Your task to perform on an android device: open the mobile data screen to see how much data has been used Image 0: 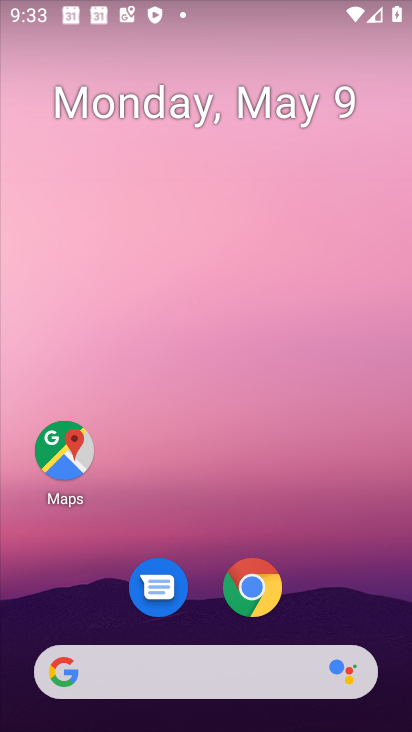
Step 0: drag from (192, 612) to (206, 310)
Your task to perform on an android device: open the mobile data screen to see how much data has been used Image 1: 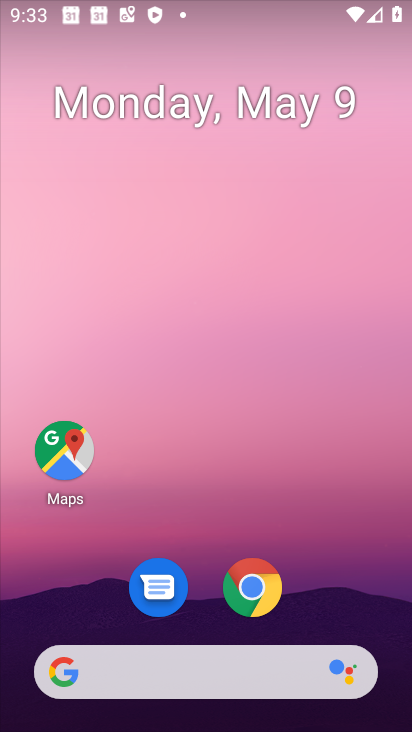
Step 1: drag from (202, 628) to (196, 178)
Your task to perform on an android device: open the mobile data screen to see how much data has been used Image 2: 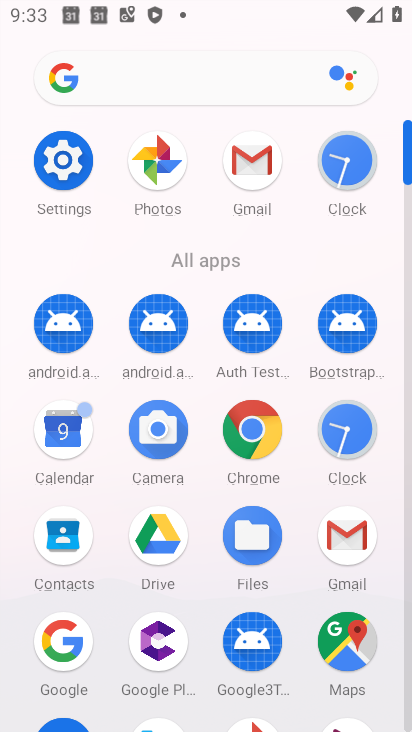
Step 2: click (62, 156)
Your task to perform on an android device: open the mobile data screen to see how much data has been used Image 3: 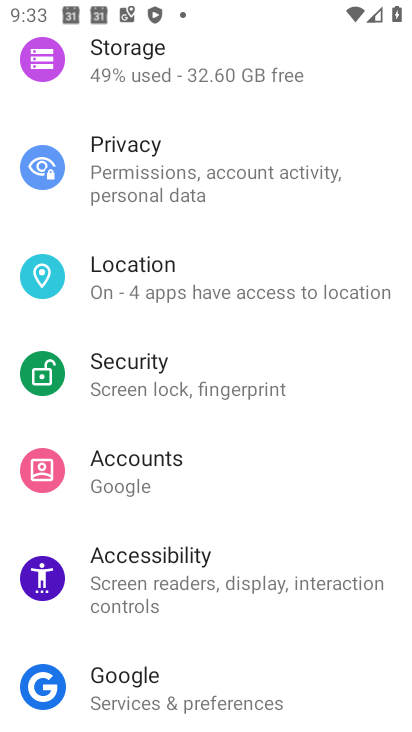
Step 3: drag from (180, 150) to (165, 669)
Your task to perform on an android device: open the mobile data screen to see how much data has been used Image 4: 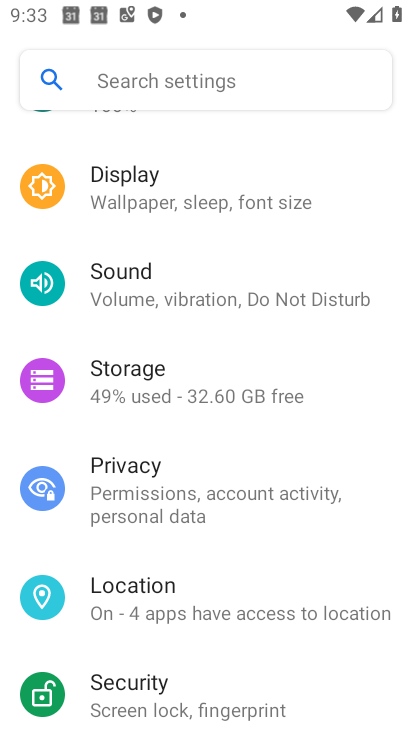
Step 4: drag from (212, 260) to (264, 675)
Your task to perform on an android device: open the mobile data screen to see how much data has been used Image 5: 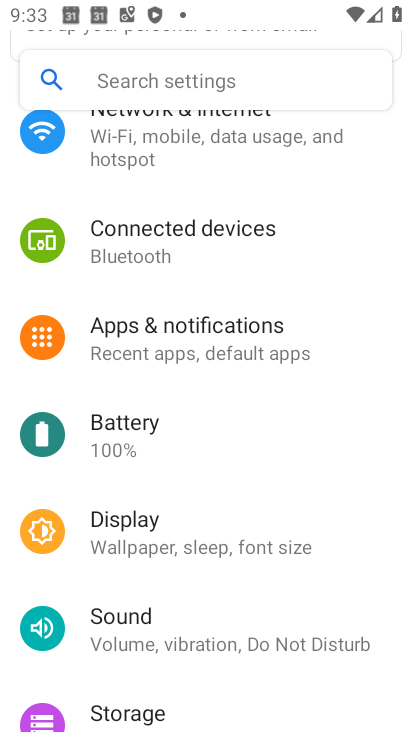
Step 5: click (188, 152)
Your task to perform on an android device: open the mobile data screen to see how much data has been used Image 6: 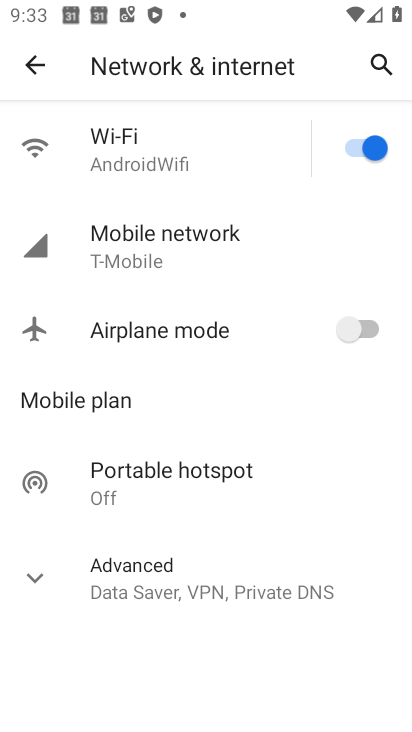
Step 6: click (205, 277)
Your task to perform on an android device: open the mobile data screen to see how much data has been used Image 7: 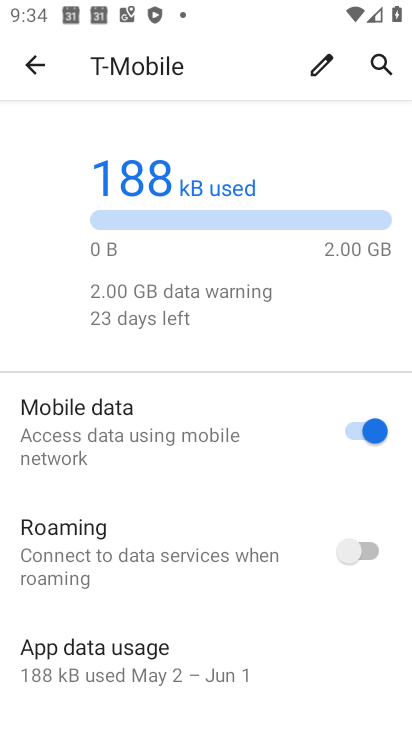
Step 7: task complete